Your task to perform on an android device: turn off notifications settings in the gmail app Image 0: 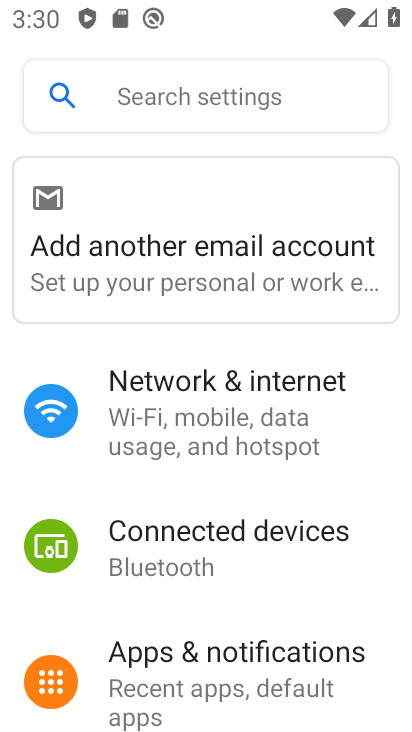
Step 0: press home button
Your task to perform on an android device: turn off notifications settings in the gmail app Image 1: 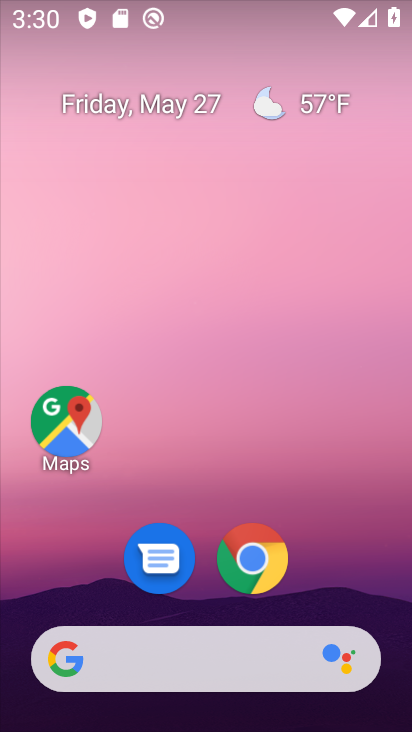
Step 1: drag from (382, 607) to (242, 1)
Your task to perform on an android device: turn off notifications settings in the gmail app Image 2: 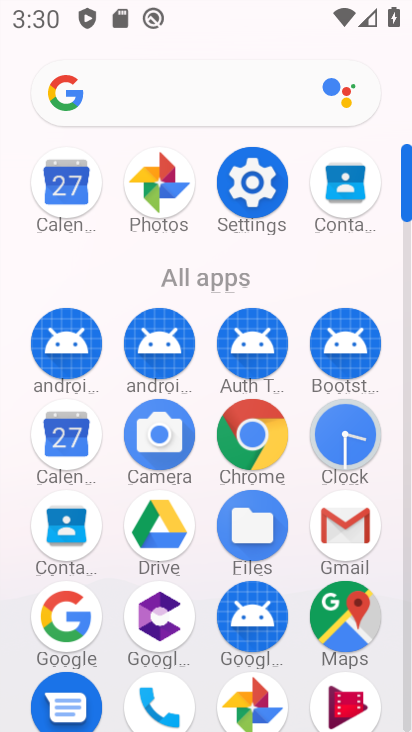
Step 2: click (345, 512)
Your task to perform on an android device: turn off notifications settings in the gmail app Image 3: 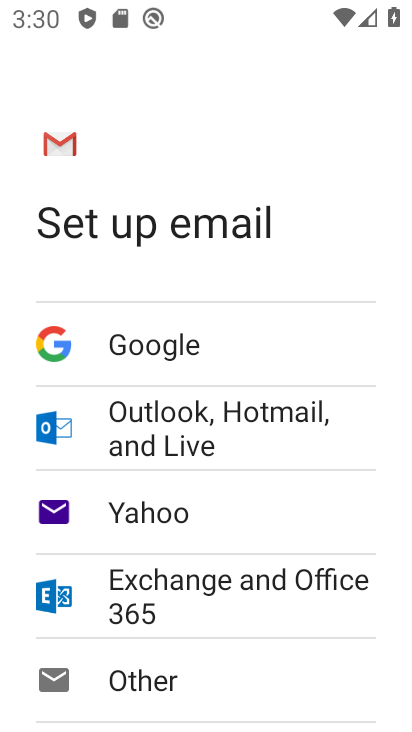
Step 3: press back button
Your task to perform on an android device: turn off notifications settings in the gmail app Image 4: 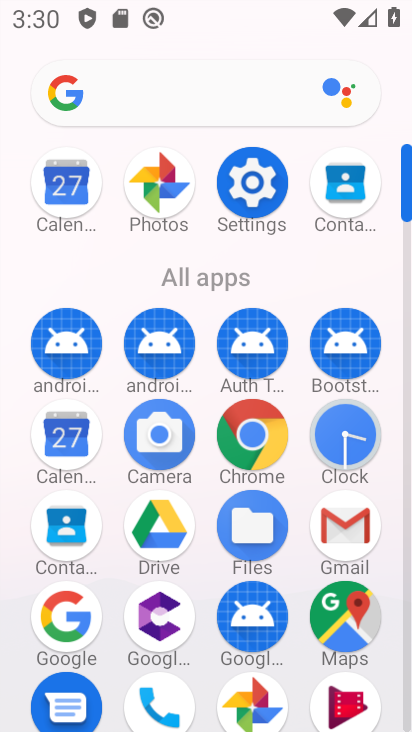
Step 4: click (331, 525)
Your task to perform on an android device: turn off notifications settings in the gmail app Image 5: 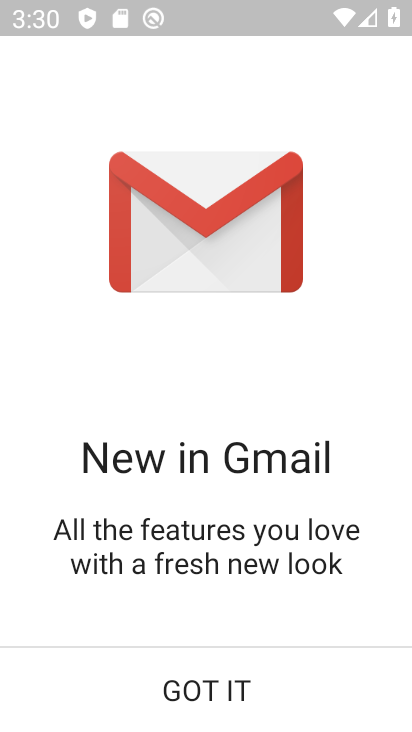
Step 5: click (269, 676)
Your task to perform on an android device: turn off notifications settings in the gmail app Image 6: 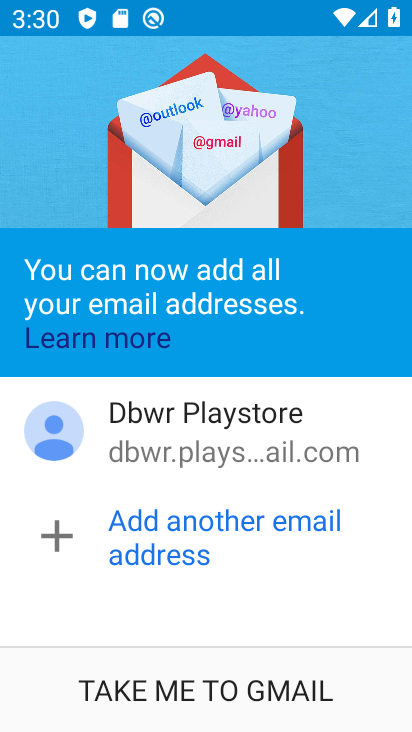
Step 6: click (269, 676)
Your task to perform on an android device: turn off notifications settings in the gmail app Image 7: 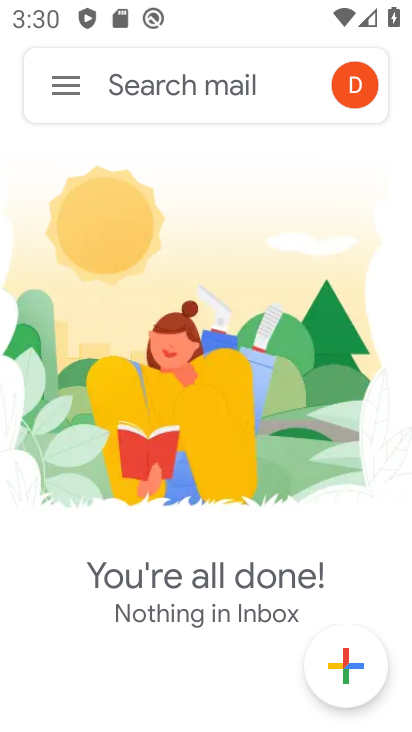
Step 7: click (64, 100)
Your task to perform on an android device: turn off notifications settings in the gmail app Image 8: 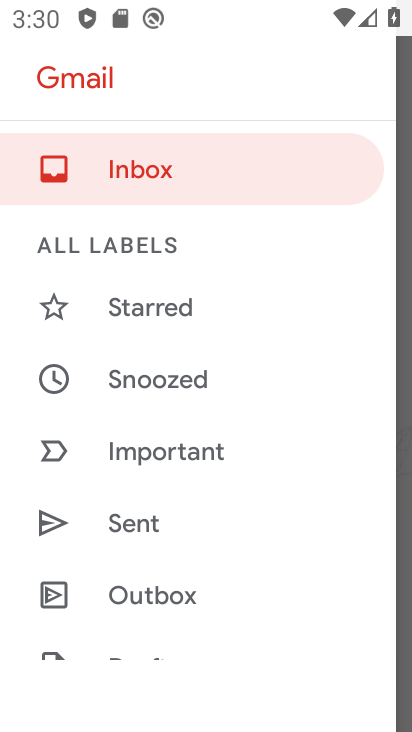
Step 8: drag from (172, 642) to (126, 263)
Your task to perform on an android device: turn off notifications settings in the gmail app Image 9: 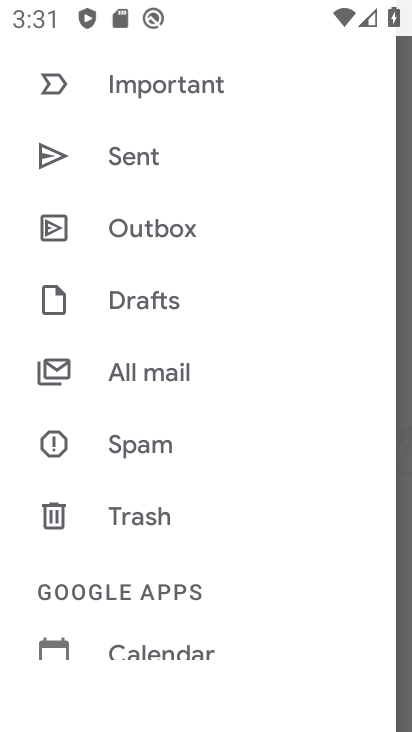
Step 9: click (137, 388)
Your task to perform on an android device: turn off notifications settings in the gmail app Image 10: 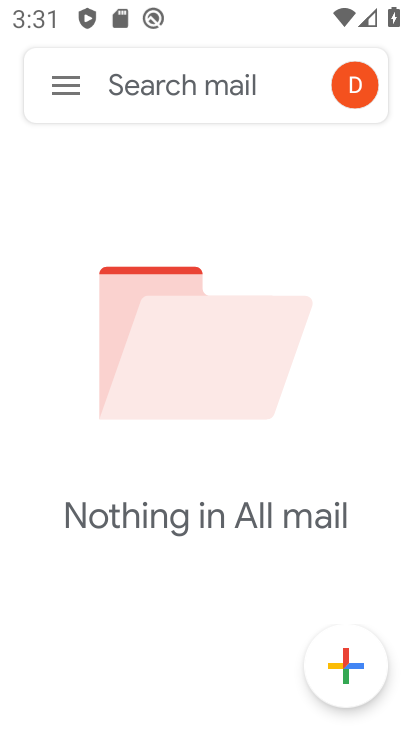
Step 10: task complete